Your task to perform on an android device: turn off data saver in the chrome app Image 0: 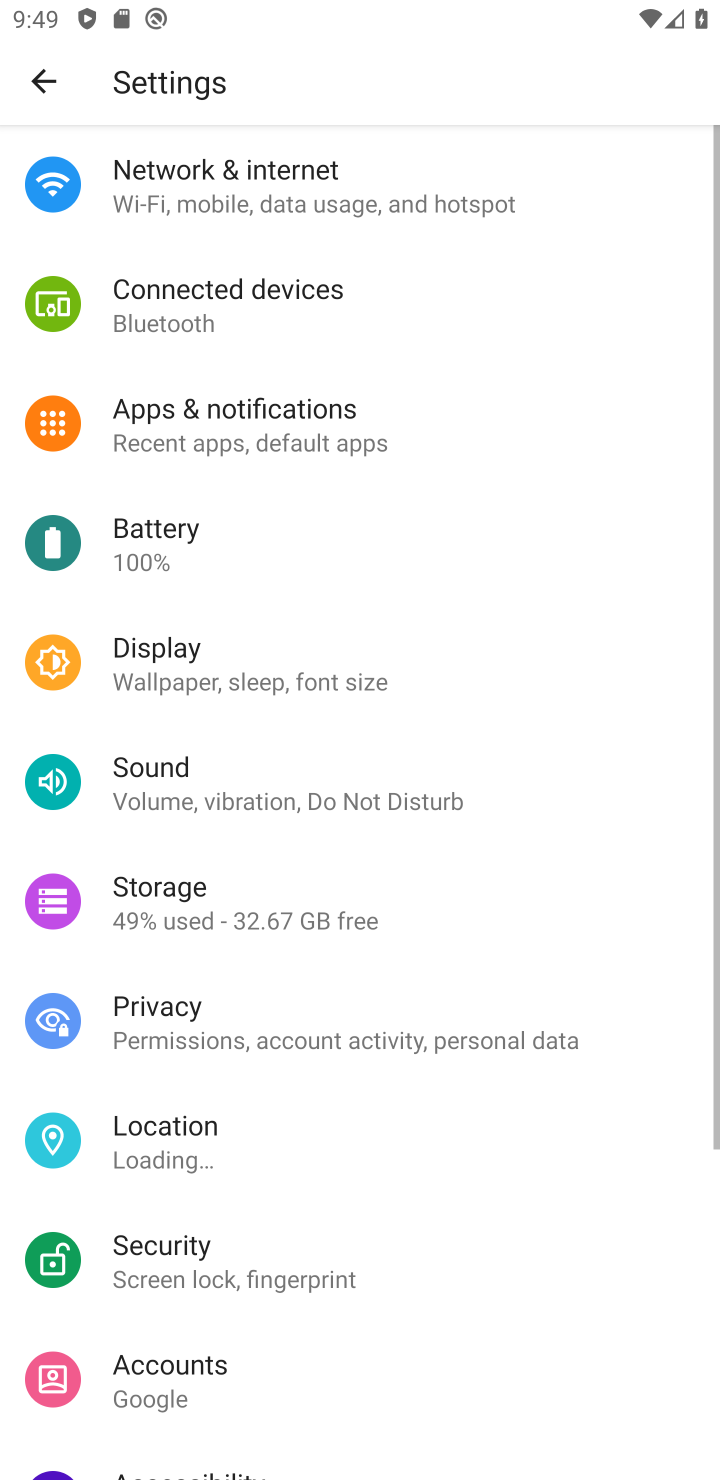
Step 0: press home button
Your task to perform on an android device: turn off data saver in the chrome app Image 1: 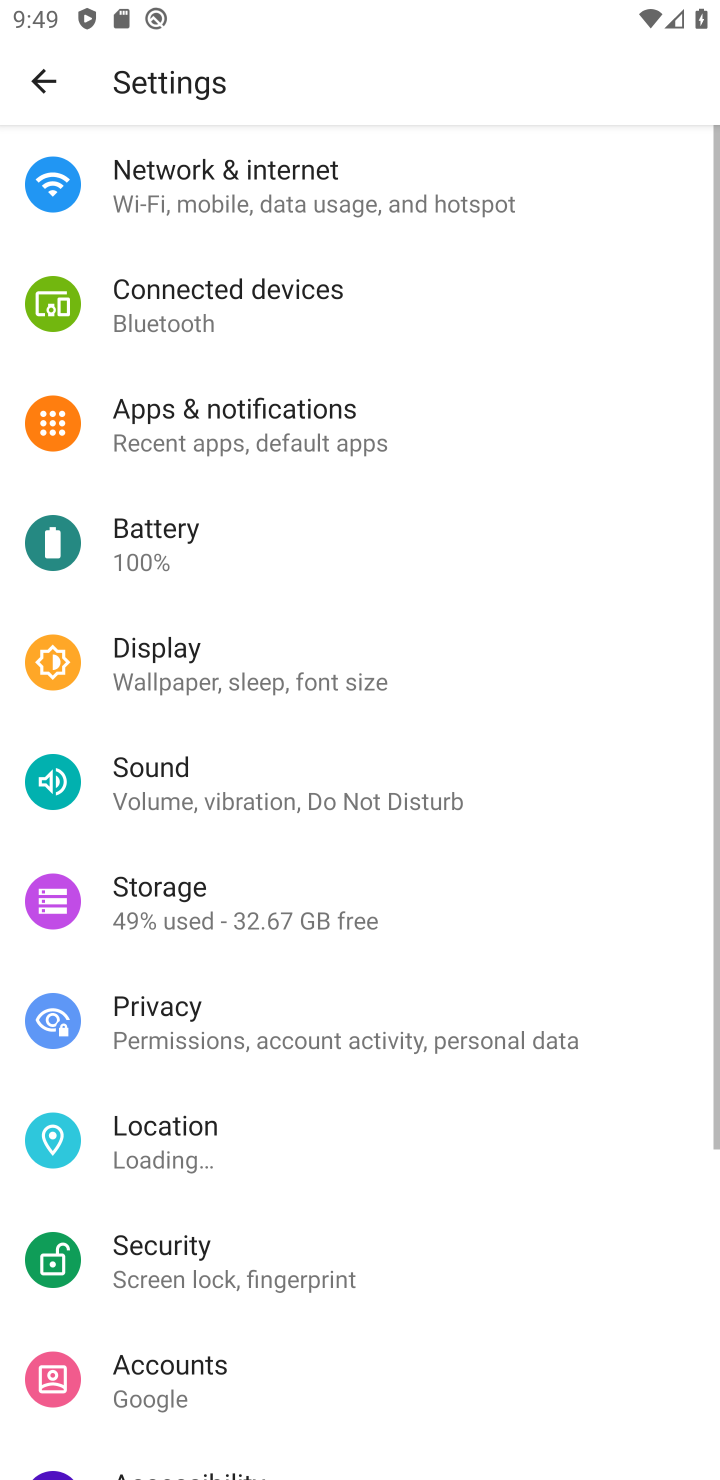
Step 1: drag from (444, 488) to (311, 149)
Your task to perform on an android device: turn off data saver in the chrome app Image 2: 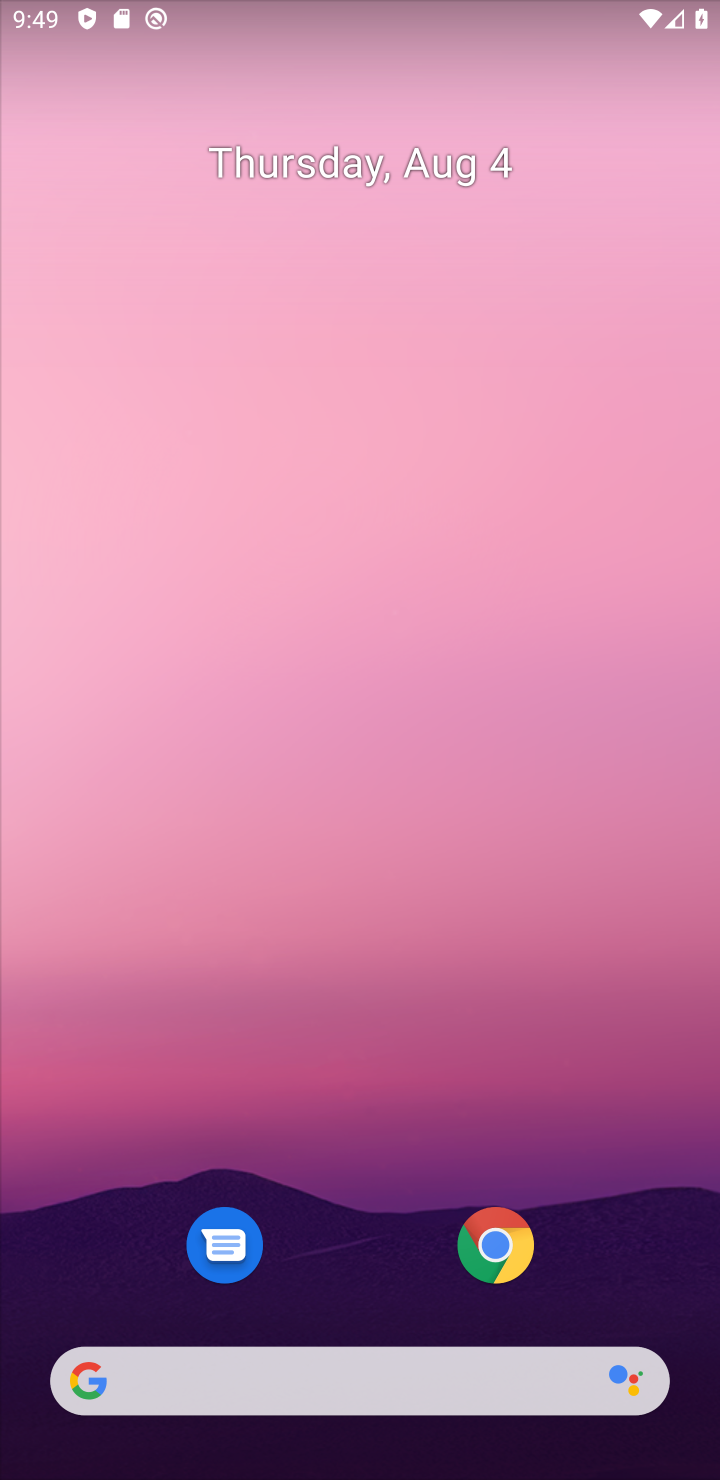
Step 2: drag from (612, 1242) to (404, 238)
Your task to perform on an android device: turn off data saver in the chrome app Image 3: 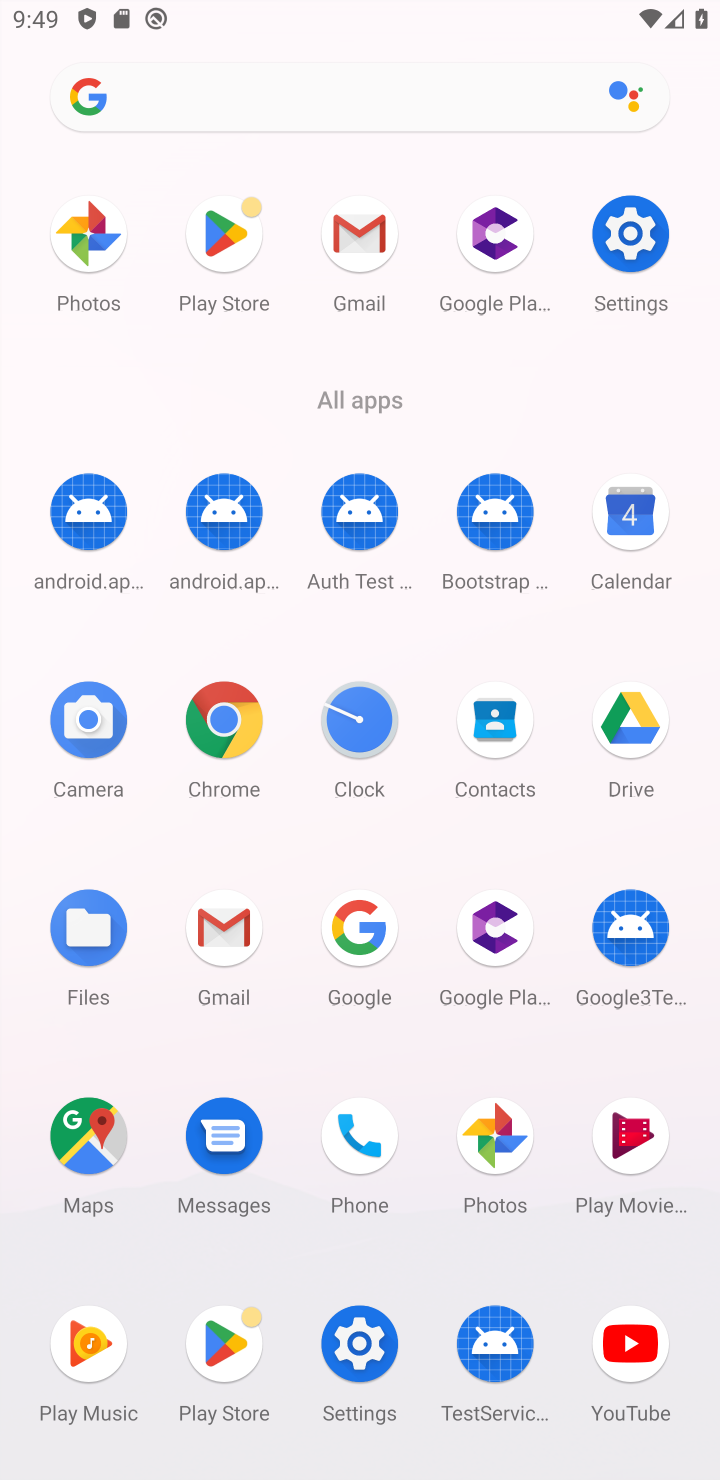
Step 3: click (218, 720)
Your task to perform on an android device: turn off data saver in the chrome app Image 4: 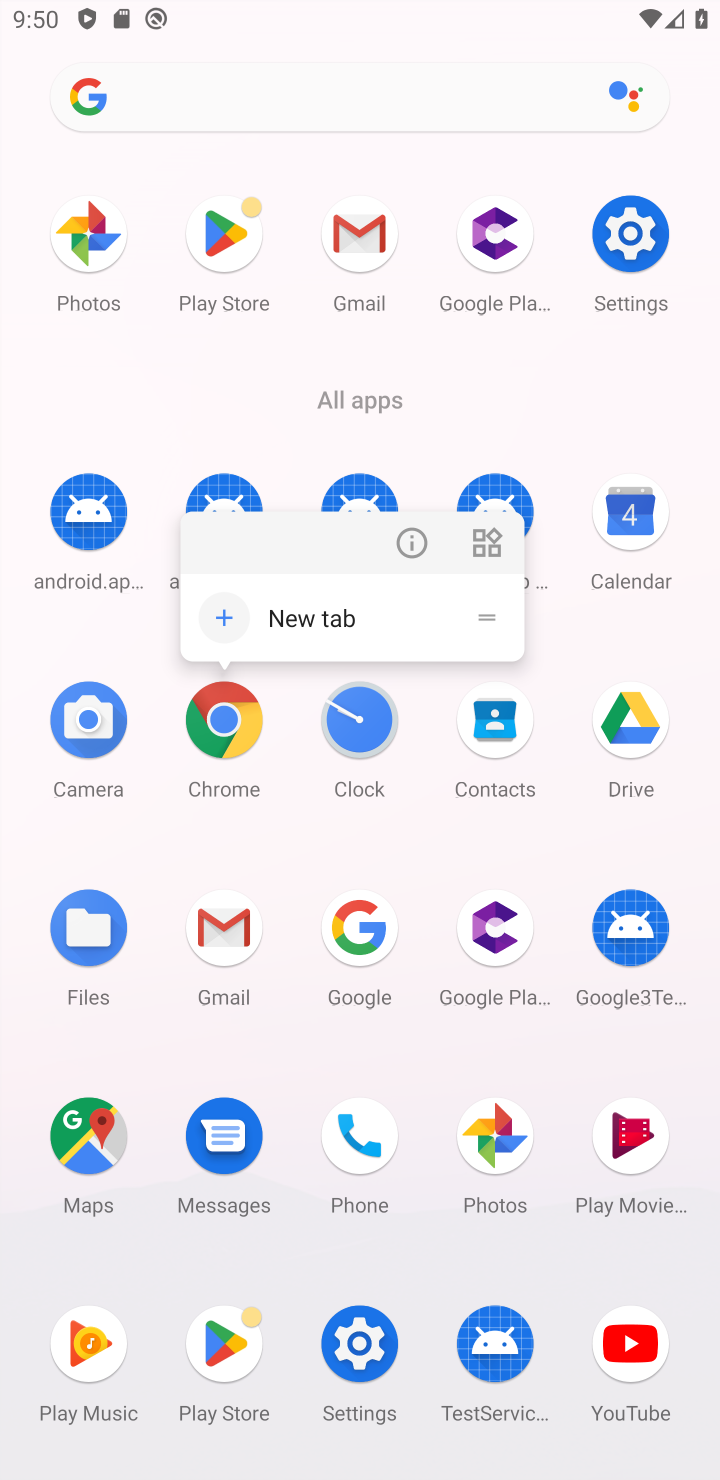
Step 4: click (218, 720)
Your task to perform on an android device: turn off data saver in the chrome app Image 5: 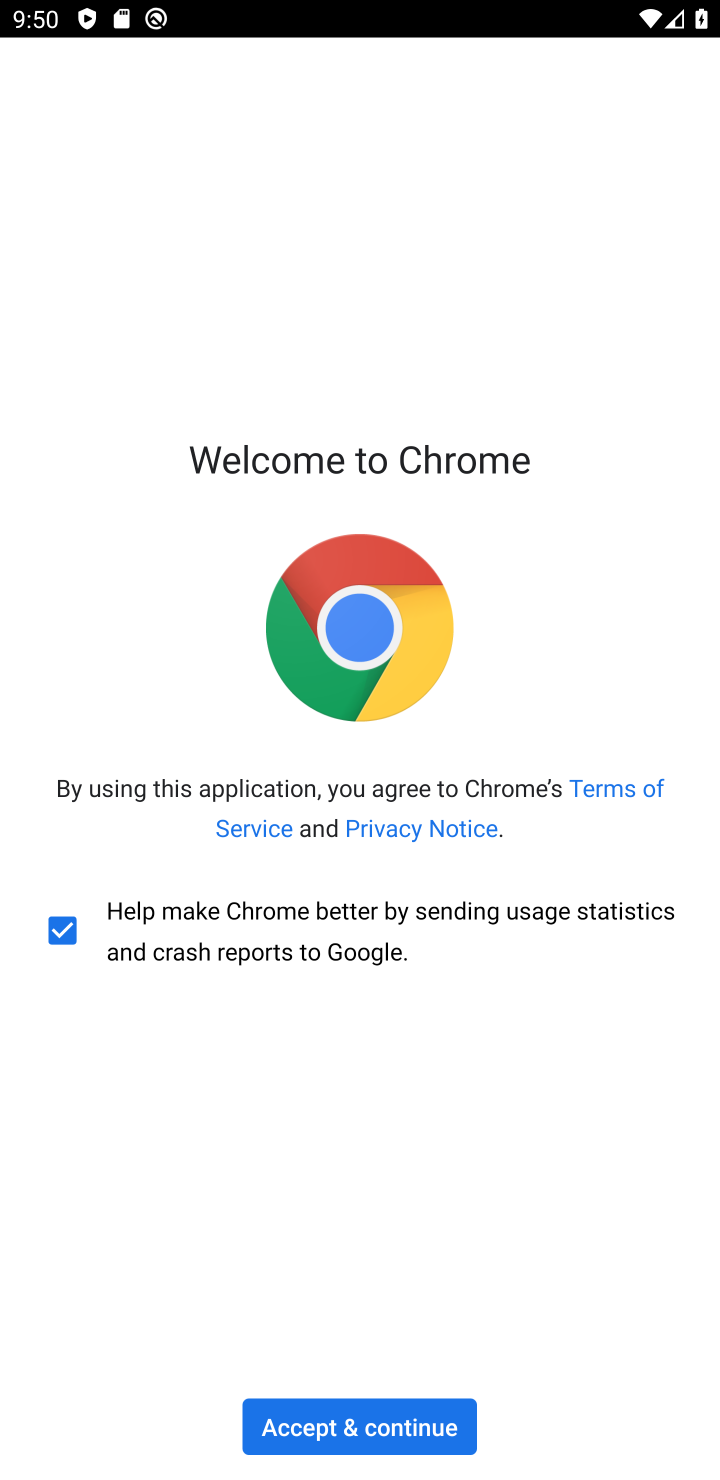
Step 5: click (445, 1431)
Your task to perform on an android device: turn off data saver in the chrome app Image 6: 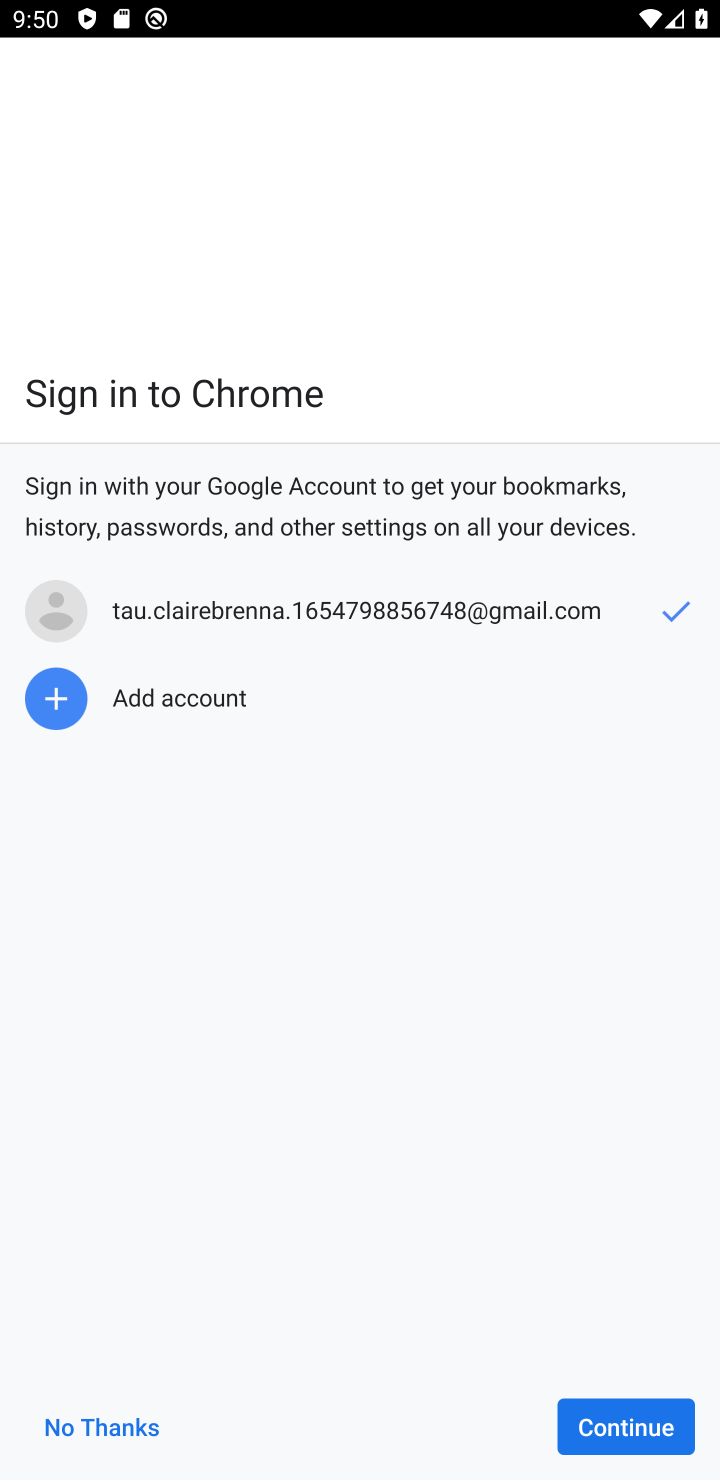
Step 6: click (646, 1415)
Your task to perform on an android device: turn off data saver in the chrome app Image 7: 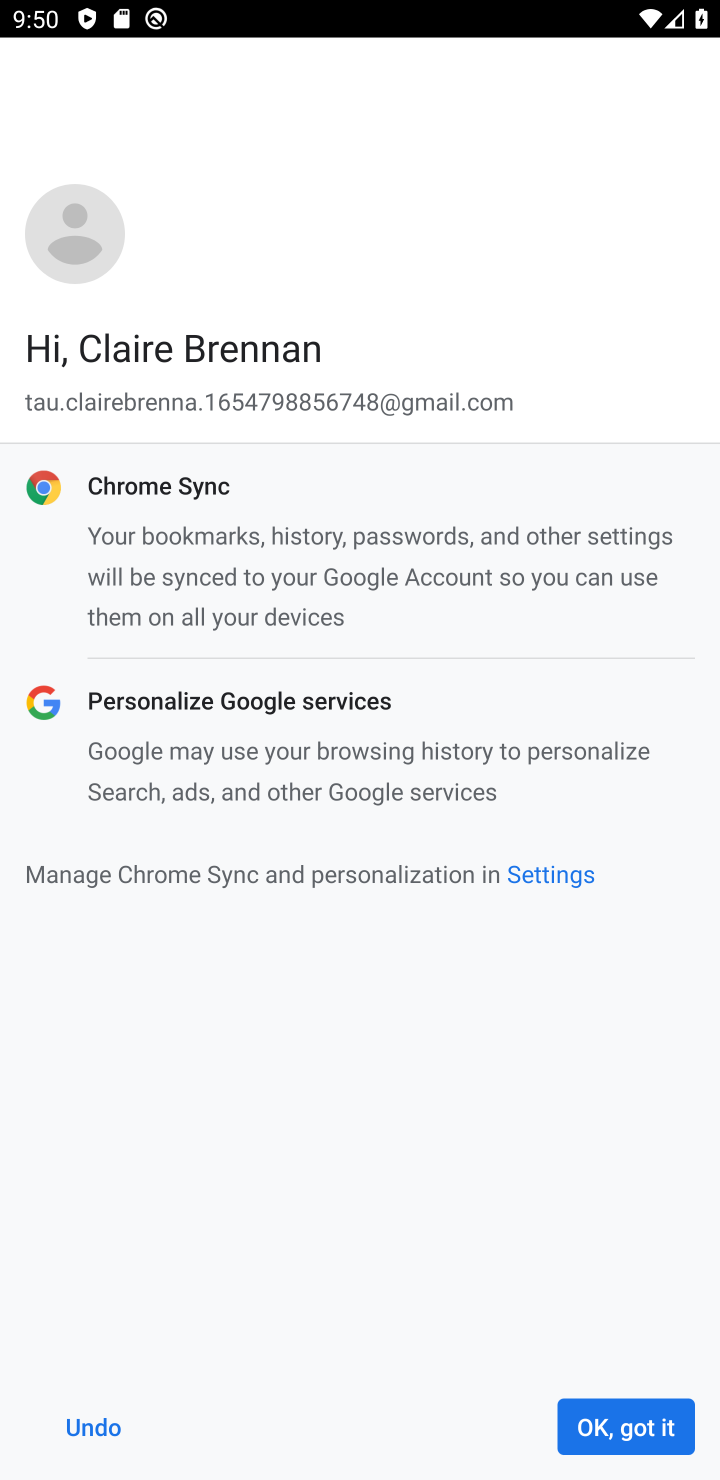
Step 7: click (646, 1415)
Your task to perform on an android device: turn off data saver in the chrome app Image 8: 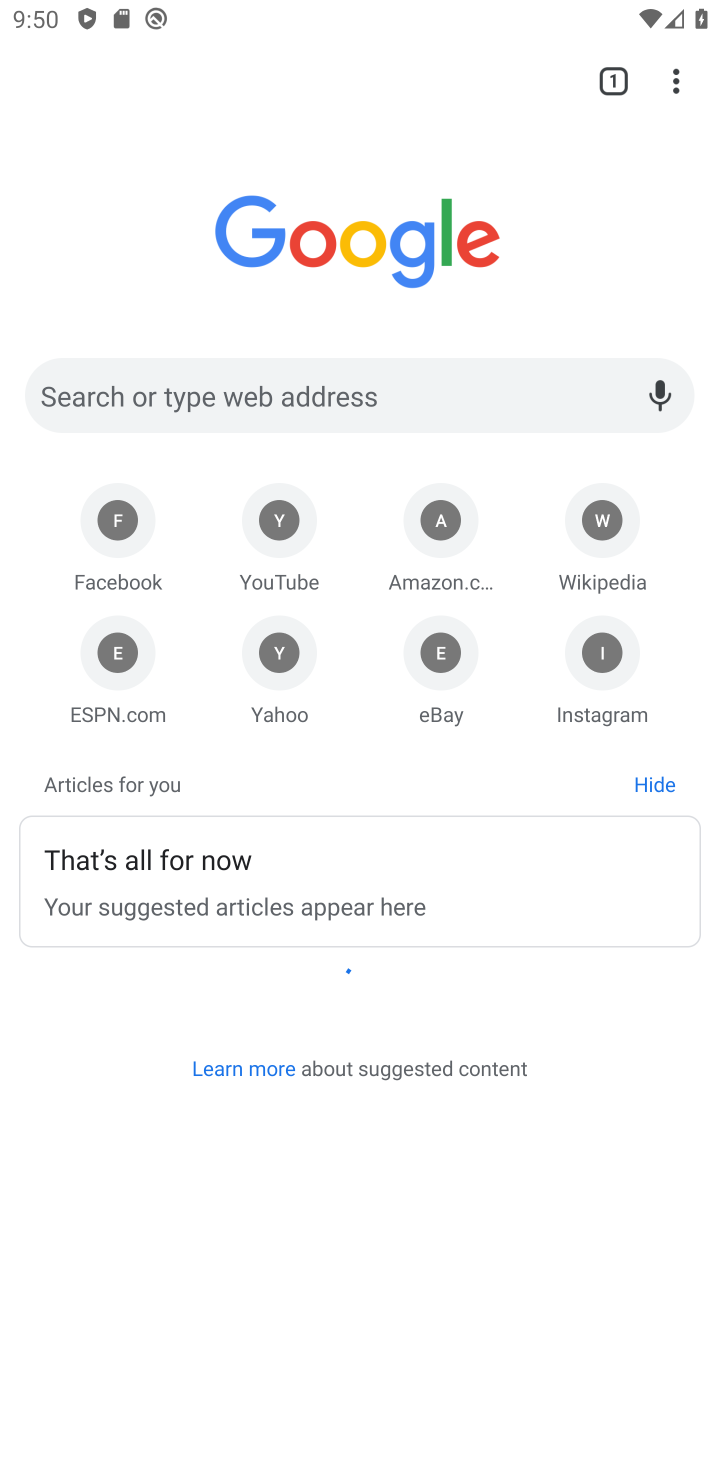
Step 8: drag from (681, 84) to (435, 685)
Your task to perform on an android device: turn off data saver in the chrome app Image 9: 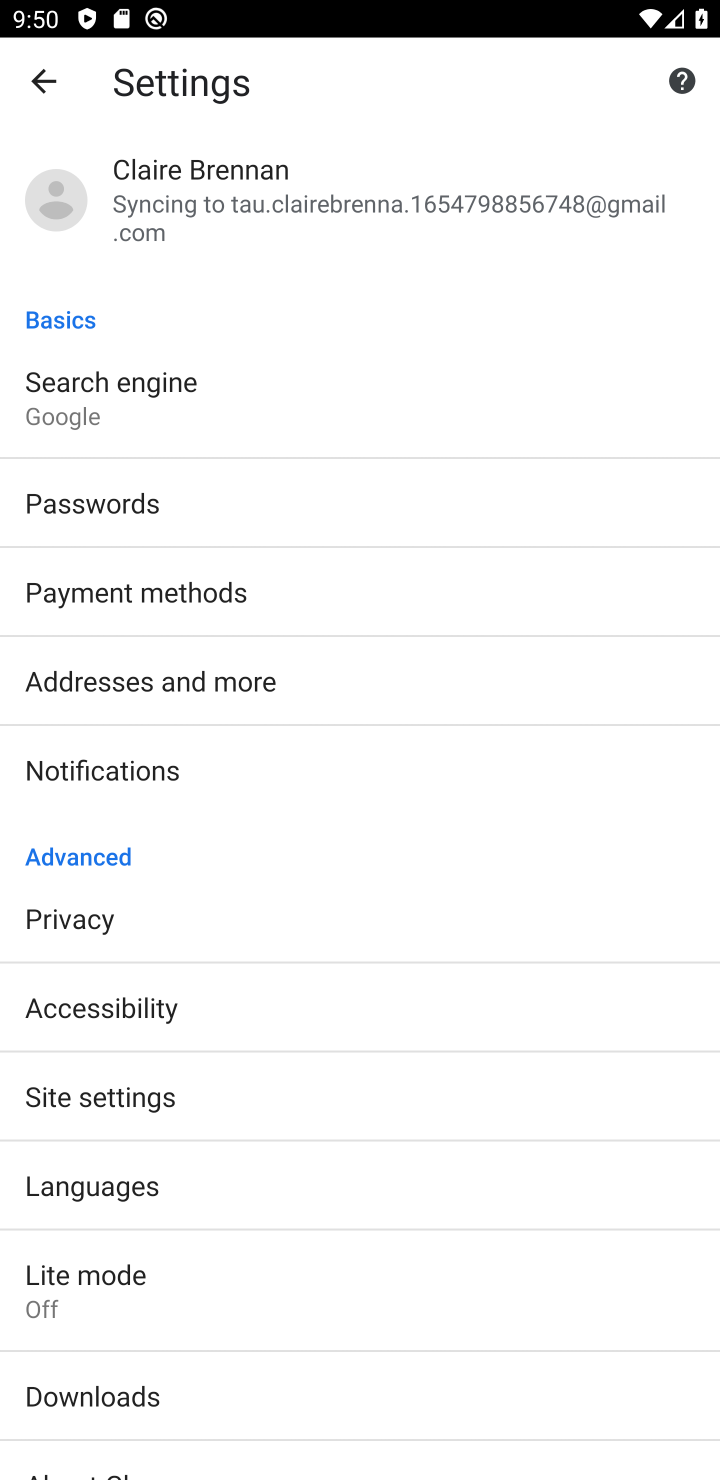
Step 9: click (70, 1291)
Your task to perform on an android device: turn off data saver in the chrome app Image 10: 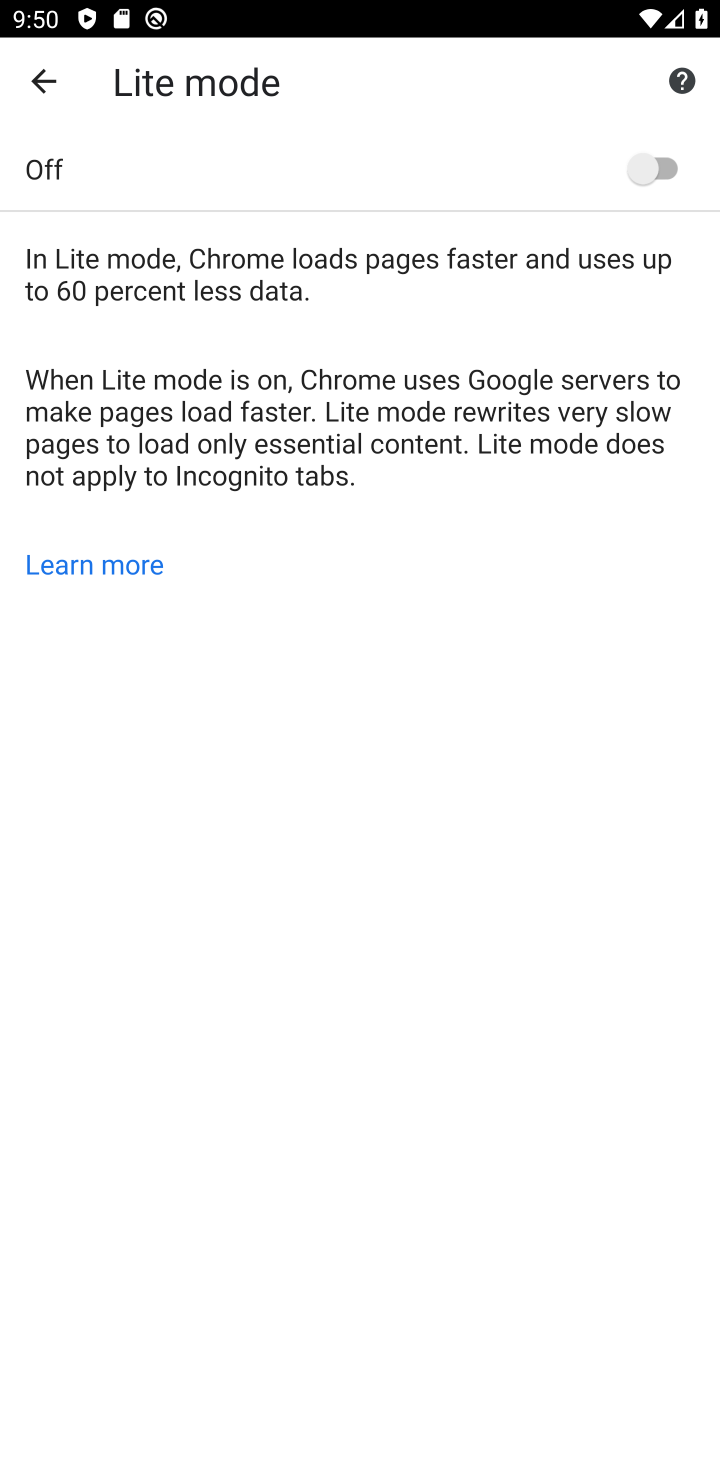
Step 10: task complete